Your task to perform on an android device: check the backup settings in the google photos Image 0: 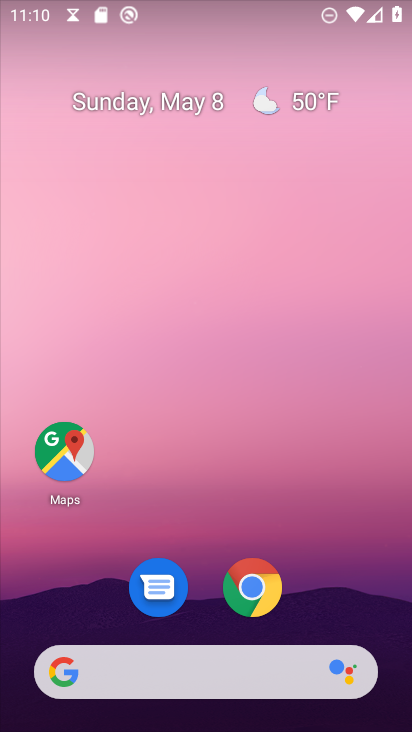
Step 0: drag from (357, 590) to (117, 143)
Your task to perform on an android device: check the backup settings in the google photos Image 1: 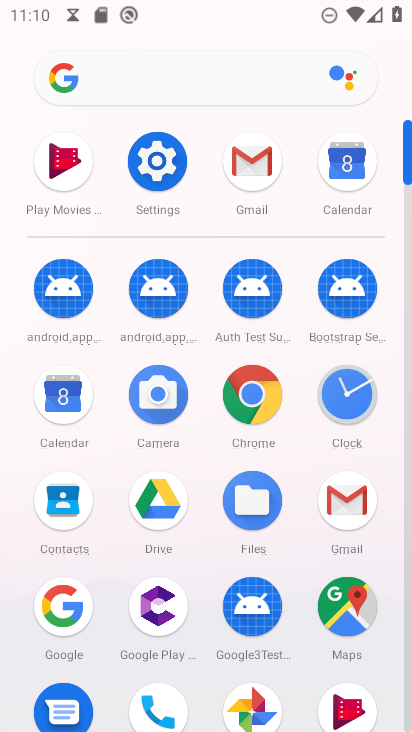
Step 1: click (251, 696)
Your task to perform on an android device: check the backup settings in the google photos Image 2: 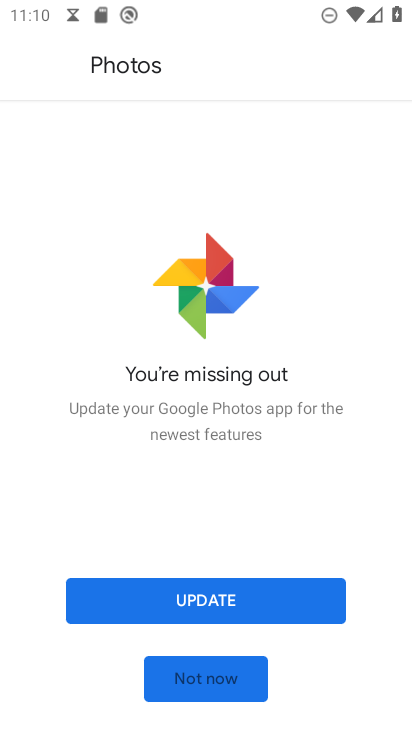
Step 2: click (169, 673)
Your task to perform on an android device: check the backup settings in the google photos Image 3: 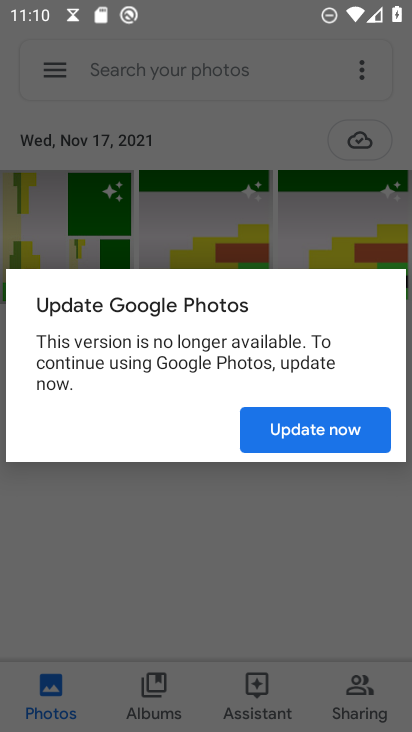
Step 3: press back button
Your task to perform on an android device: check the backup settings in the google photos Image 4: 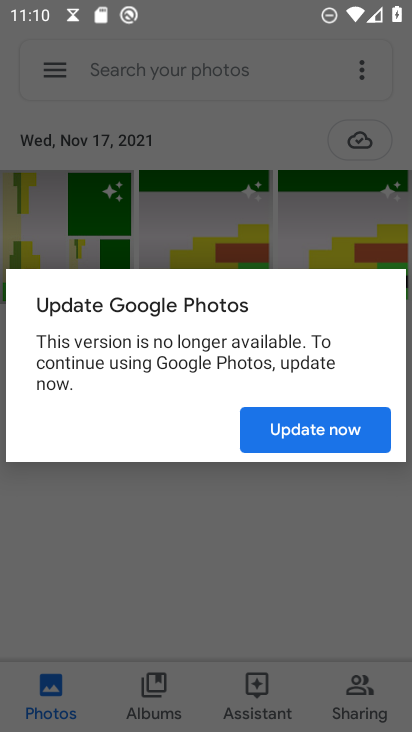
Step 4: click (295, 427)
Your task to perform on an android device: check the backup settings in the google photos Image 5: 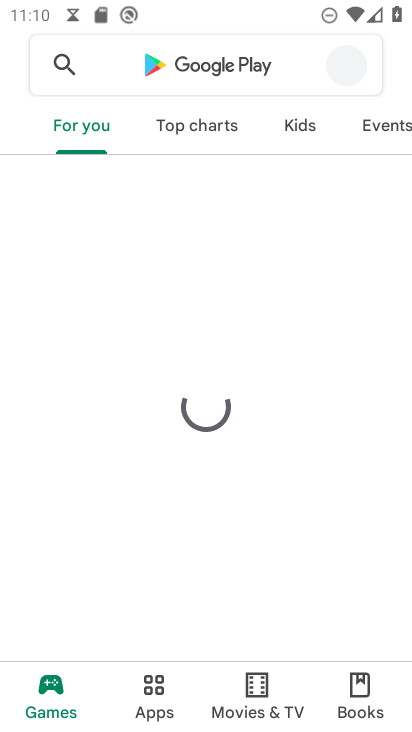
Step 5: press back button
Your task to perform on an android device: check the backup settings in the google photos Image 6: 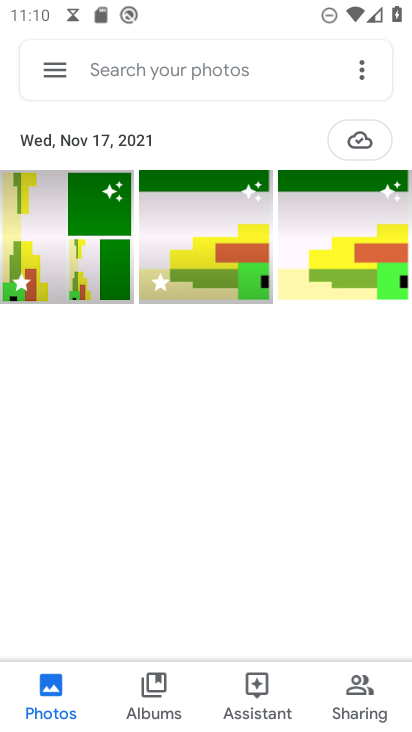
Step 6: click (63, 77)
Your task to perform on an android device: check the backup settings in the google photos Image 7: 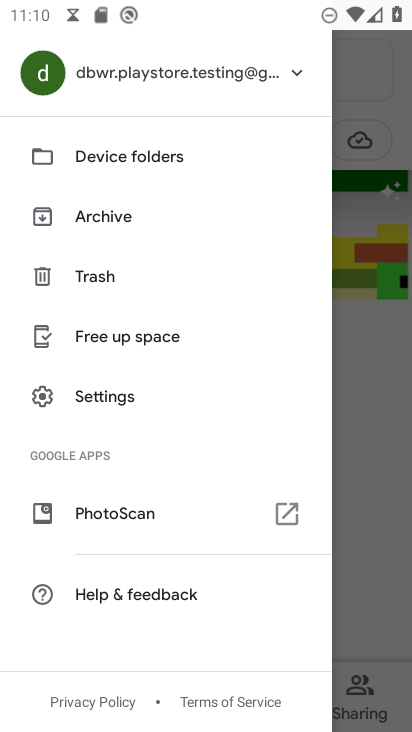
Step 7: click (113, 399)
Your task to perform on an android device: check the backup settings in the google photos Image 8: 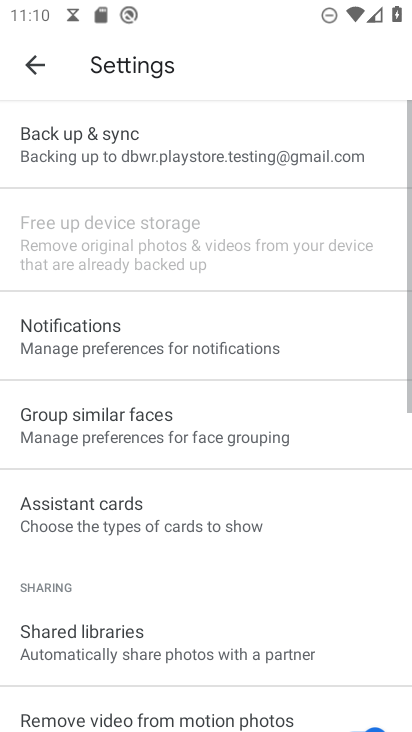
Step 8: click (158, 162)
Your task to perform on an android device: check the backup settings in the google photos Image 9: 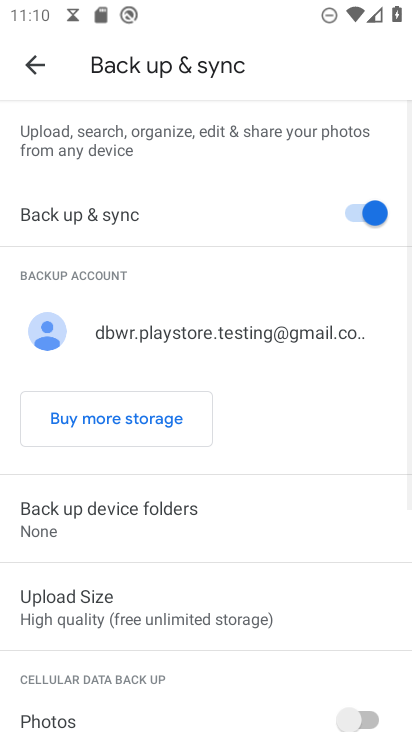
Step 9: task complete